Your task to perform on an android device: change keyboard looks Image 0: 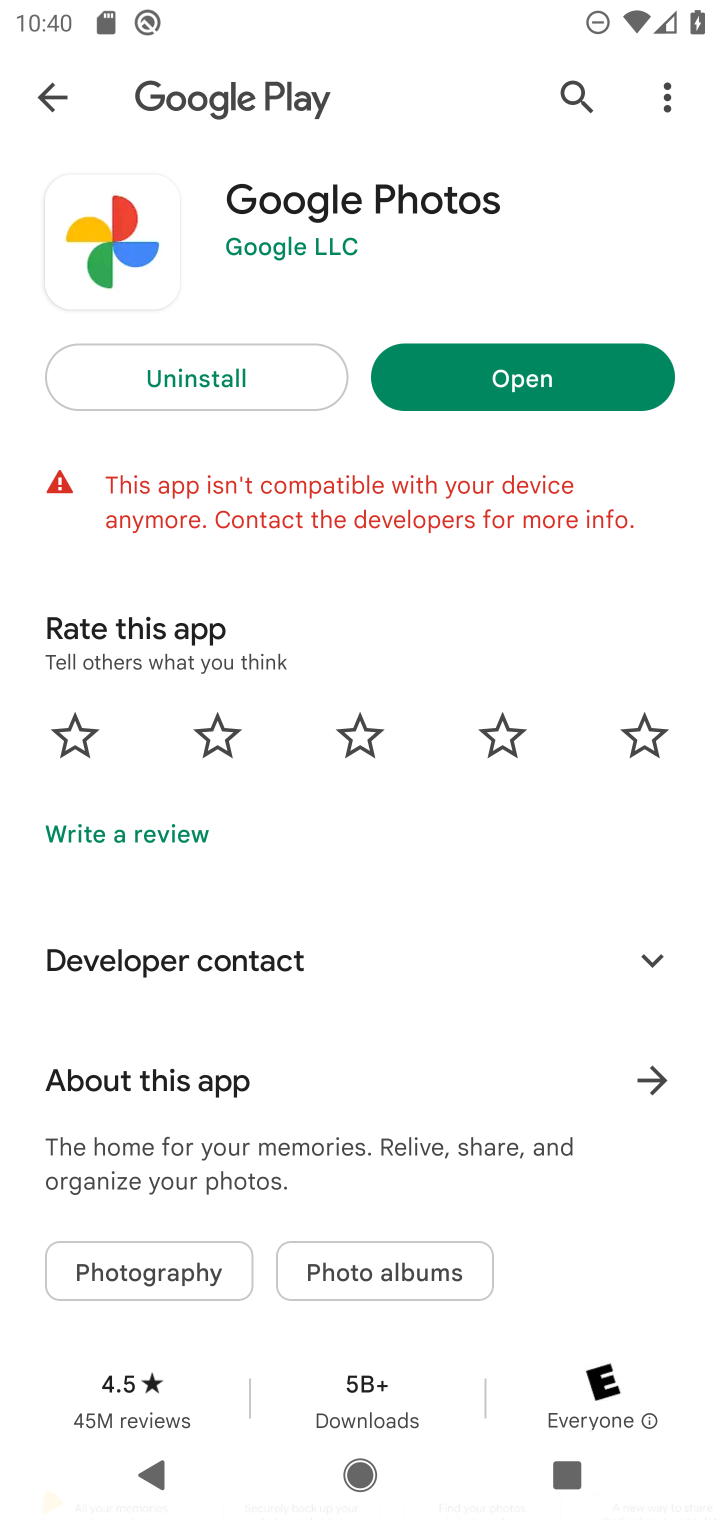
Step 0: press home button
Your task to perform on an android device: change keyboard looks Image 1: 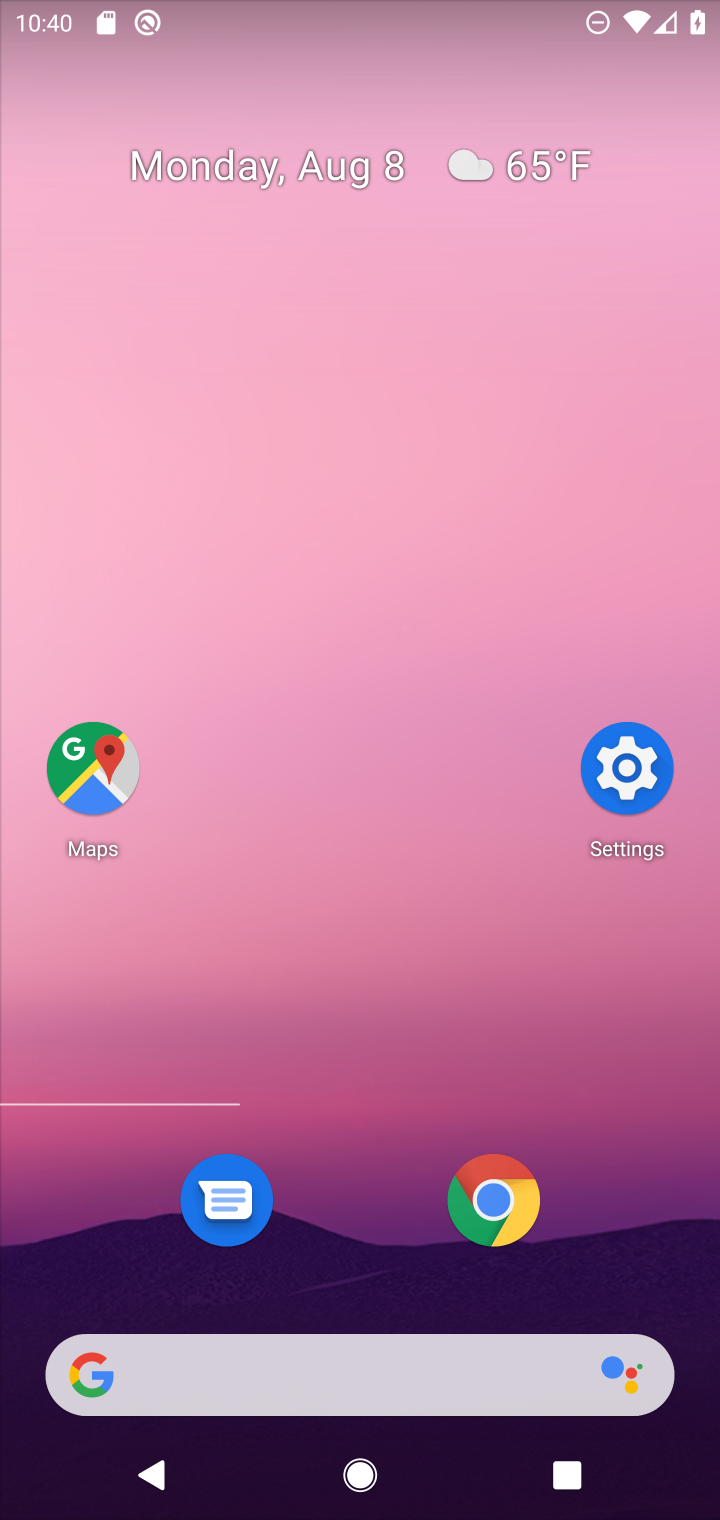
Step 1: click (629, 757)
Your task to perform on an android device: change keyboard looks Image 2: 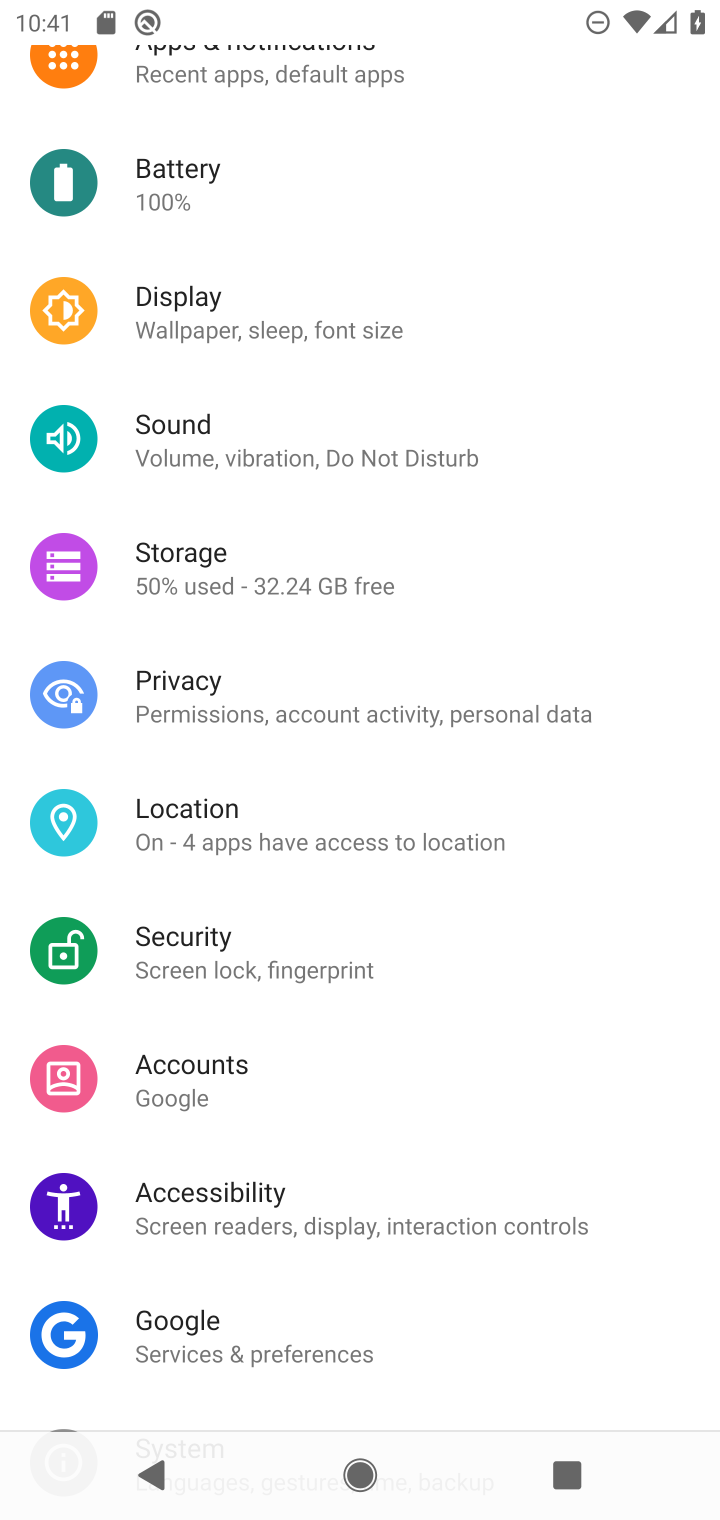
Step 2: drag from (261, 1052) to (452, 240)
Your task to perform on an android device: change keyboard looks Image 3: 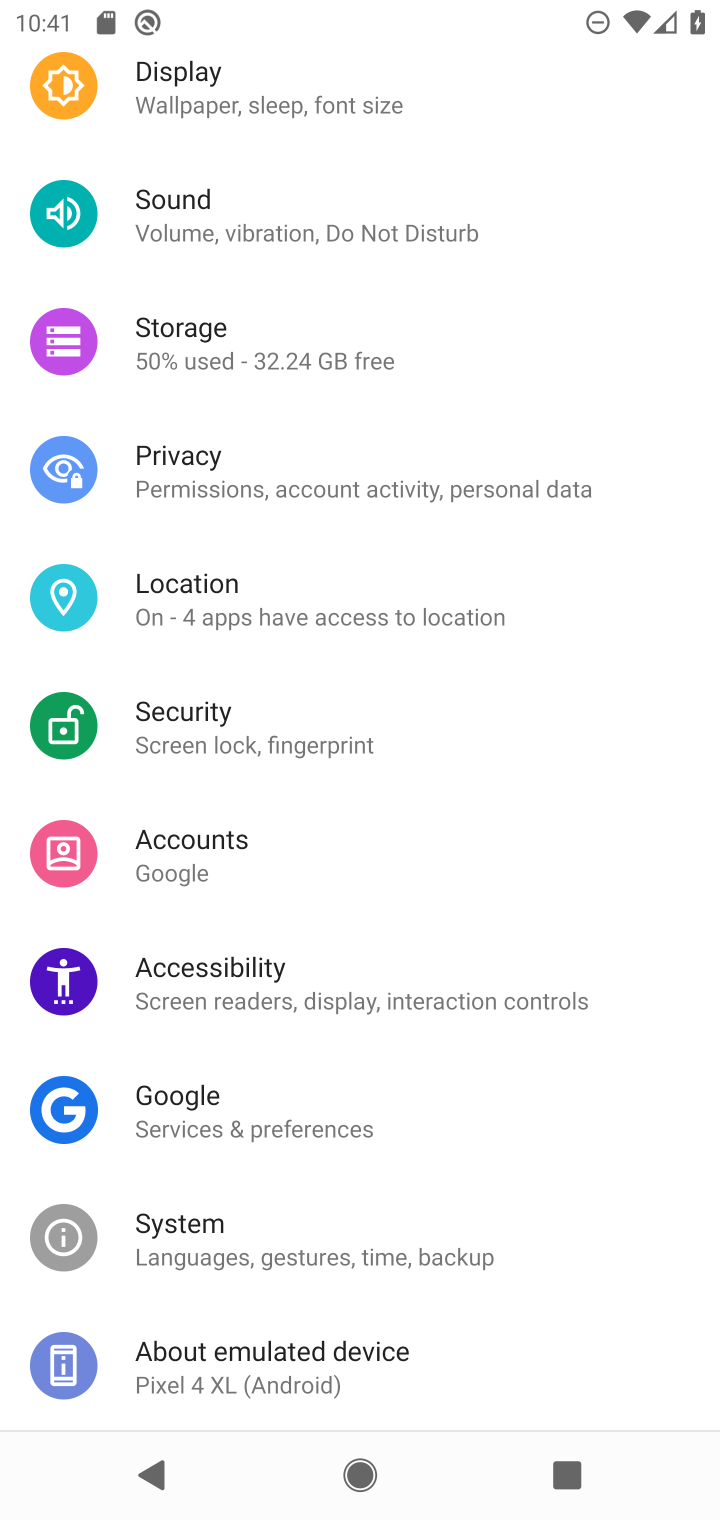
Step 3: click (254, 1235)
Your task to perform on an android device: change keyboard looks Image 4: 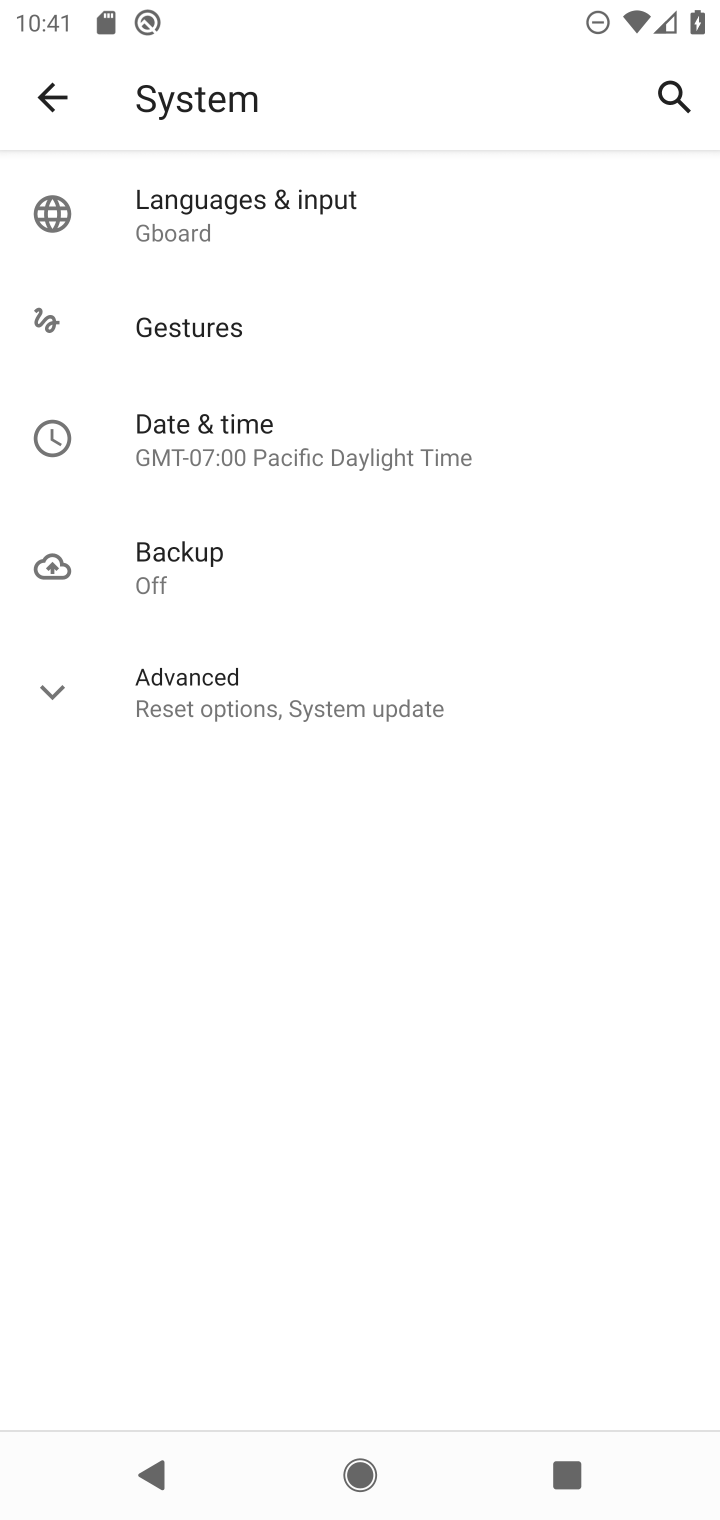
Step 4: click (237, 203)
Your task to perform on an android device: change keyboard looks Image 5: 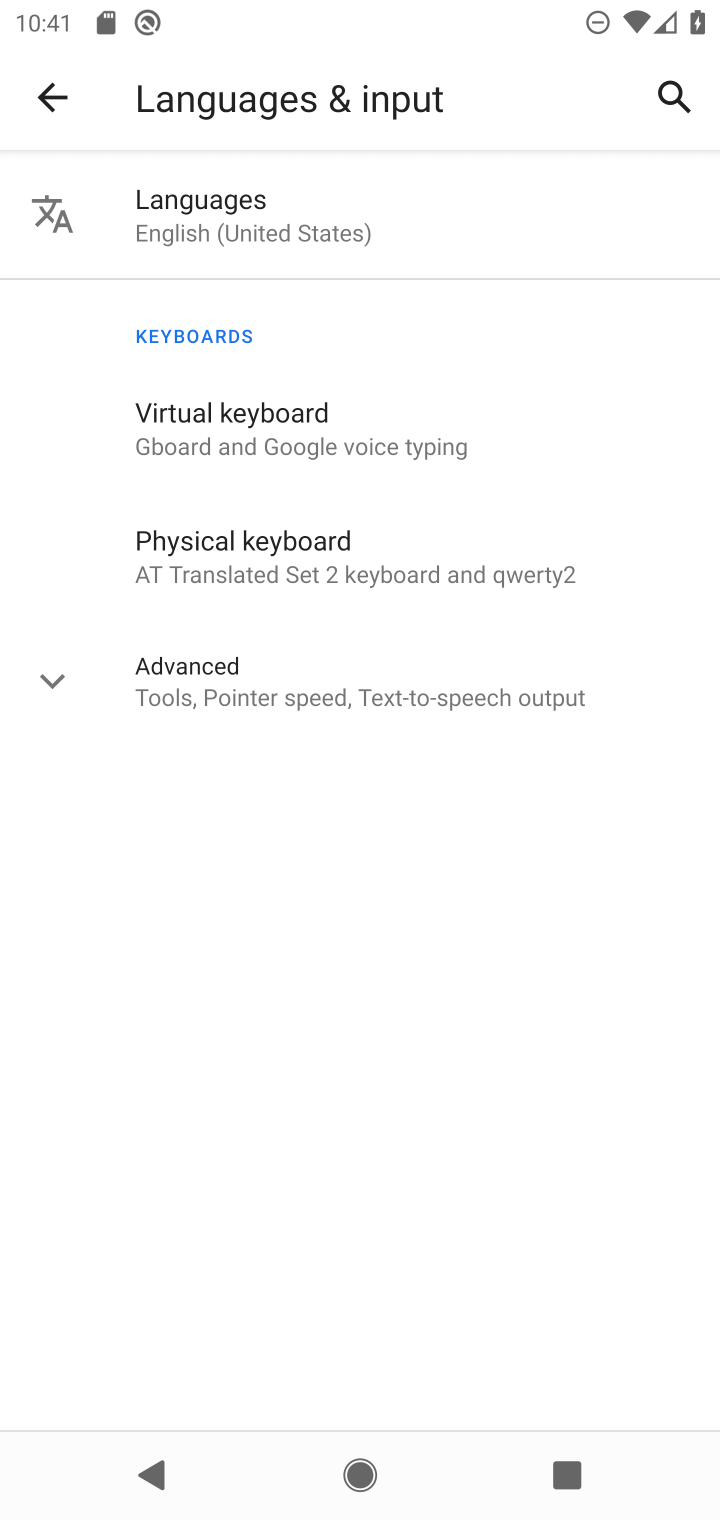
Step 5: click (245, 433)
Your task to perform on an android device: change keyboard looks Image 6: 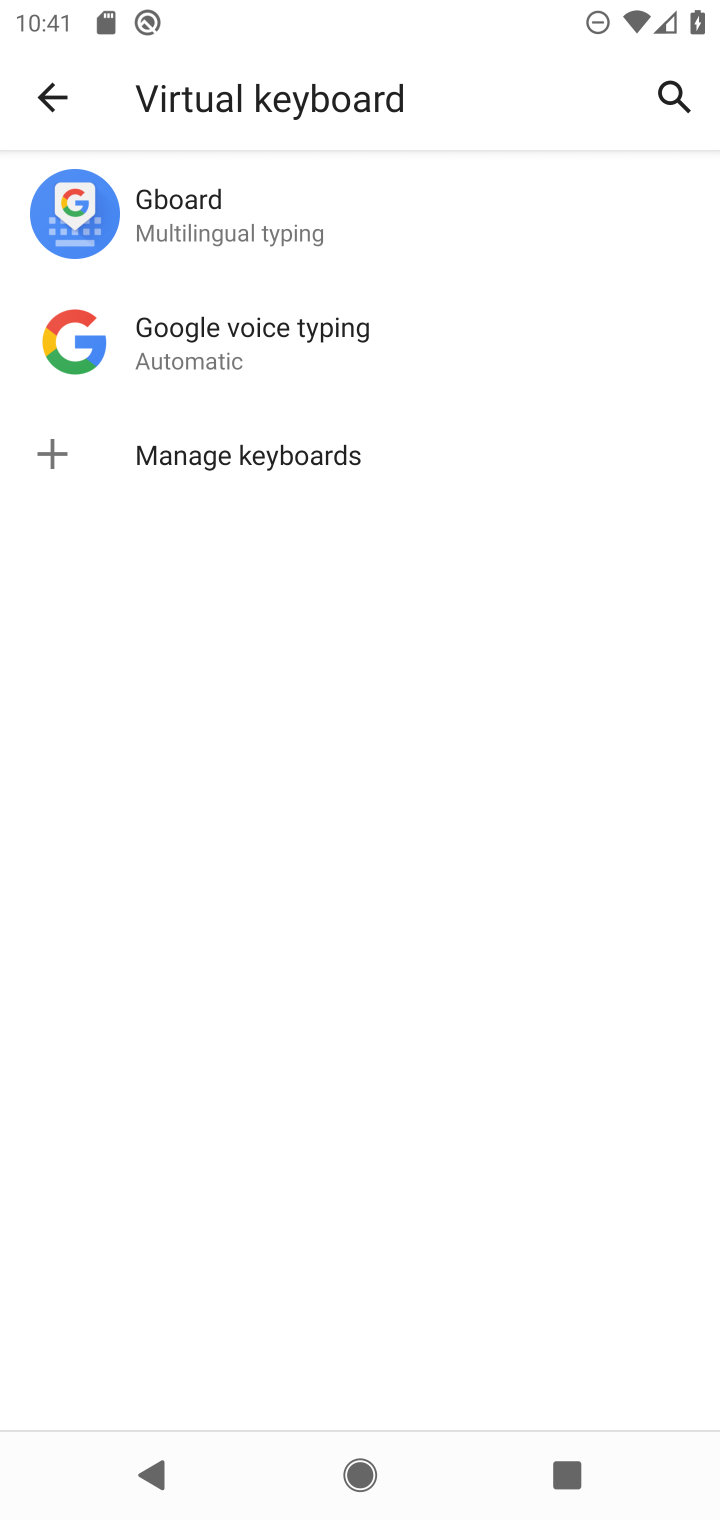
Step 6: click (215, 219)
Your task to perform on an android device: change keyboard looks Image 7: 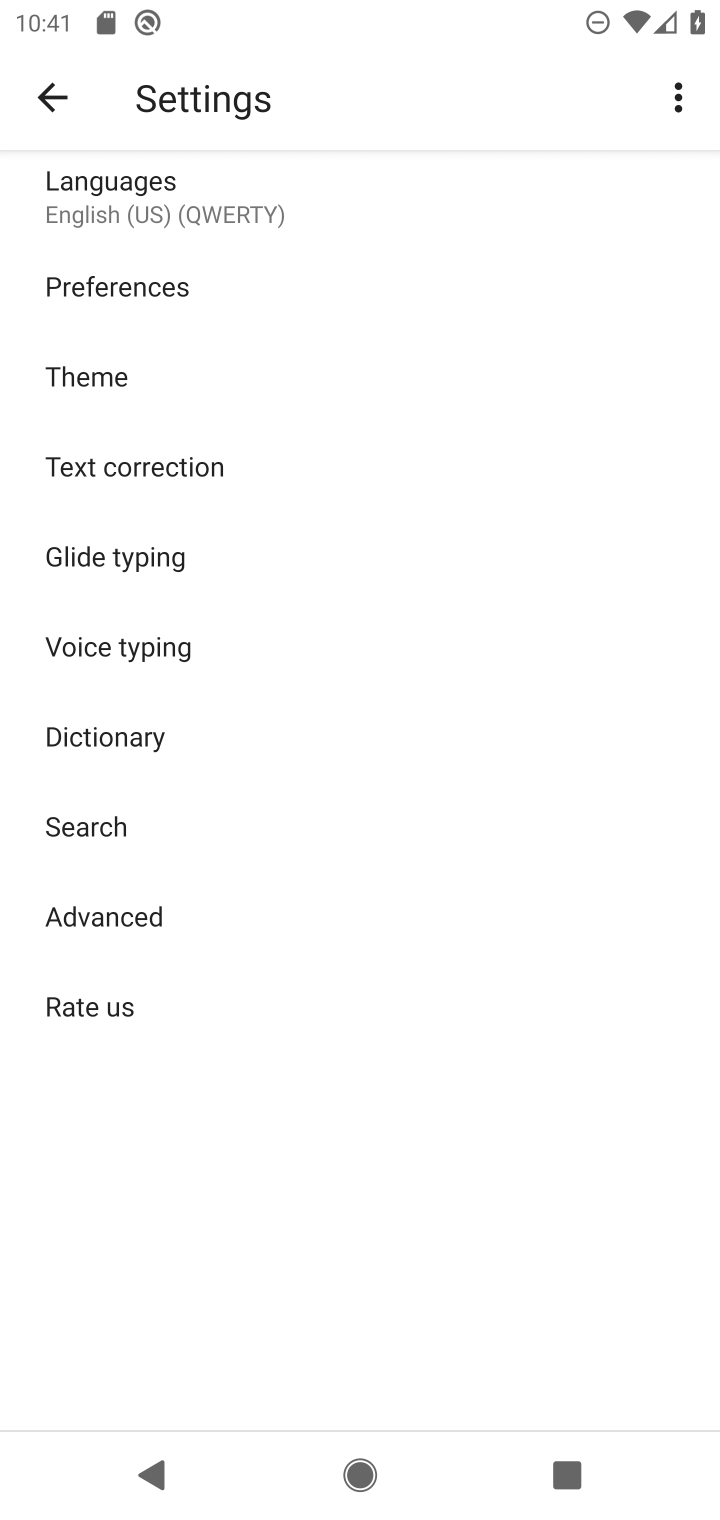
Step 7: click (114, 375)
Your task to perform on an android device: change keyboard looks Image 8: 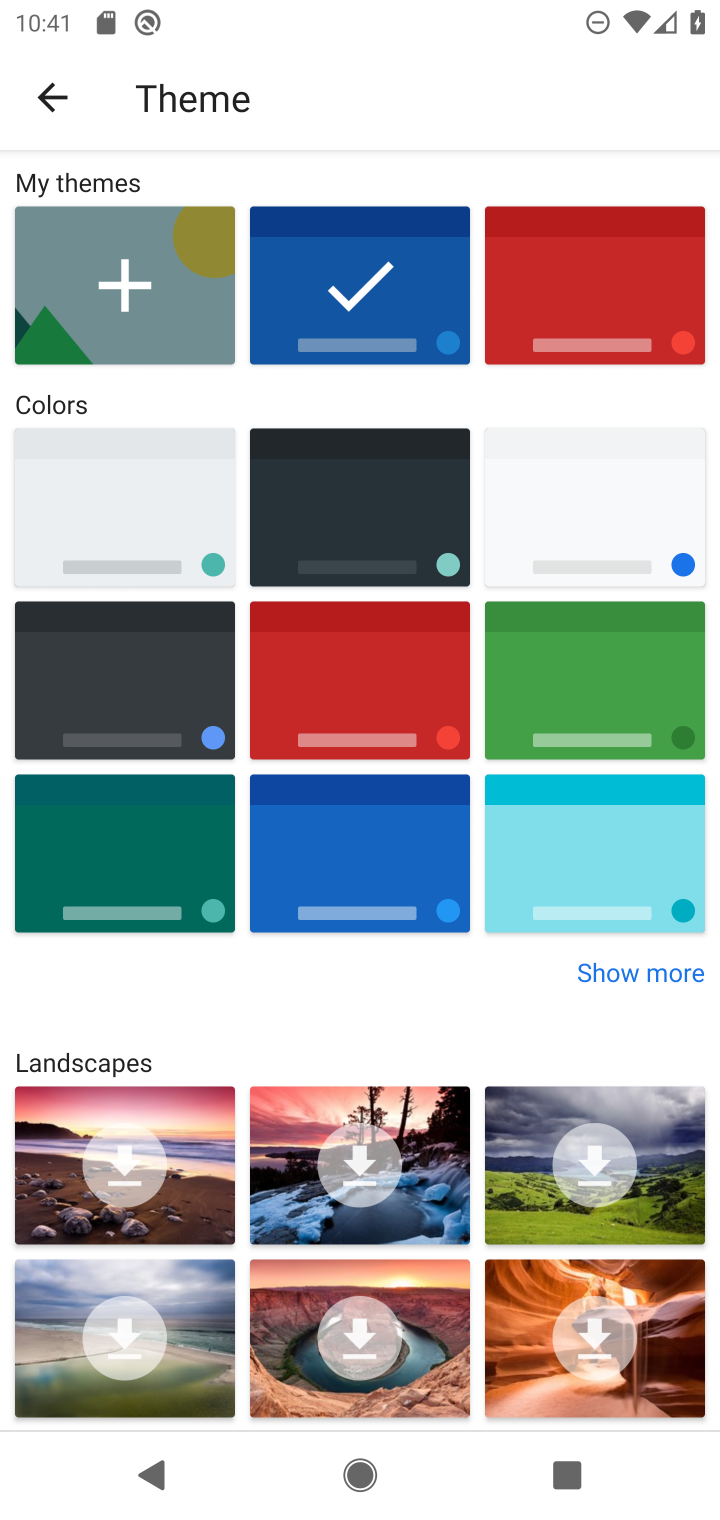
Step 8: click (597, 820)
Your task to perform on an android device: change keyboard looks Image 9: 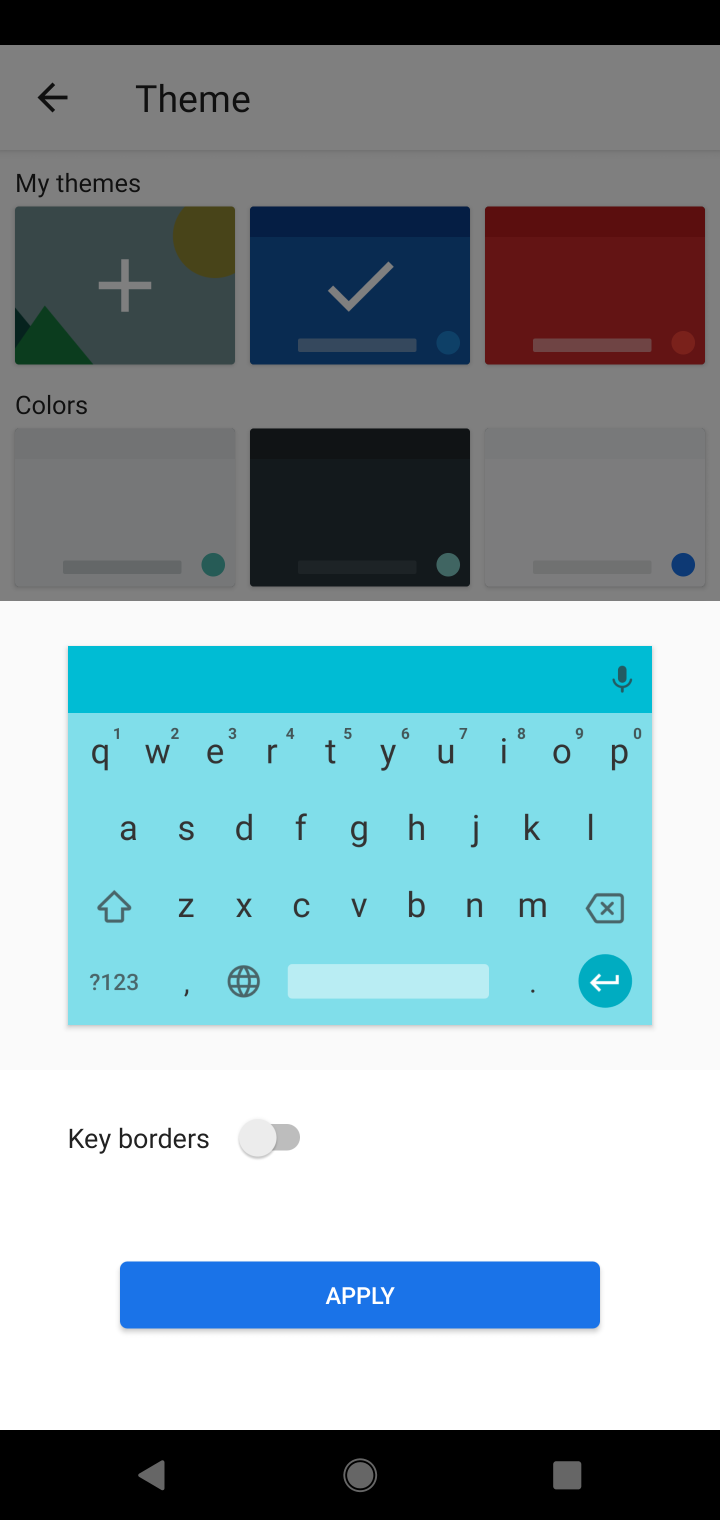
Step 9: click (333, 1291)
Your task to perform on an android device: change keyboard looks Image 10: 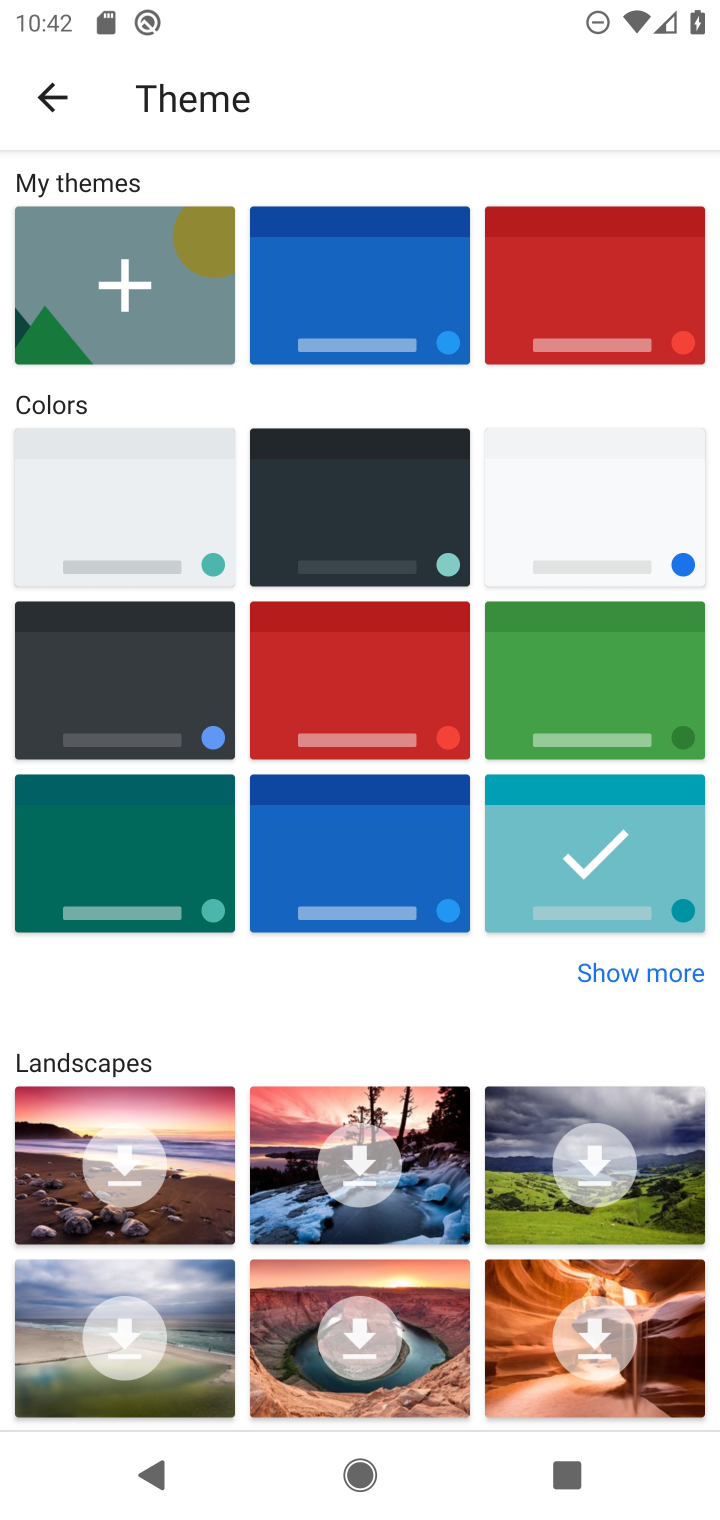
Step 10: task complete